Your task to perform on an android device: see tabs open on other devices in the chrome app Image 0: 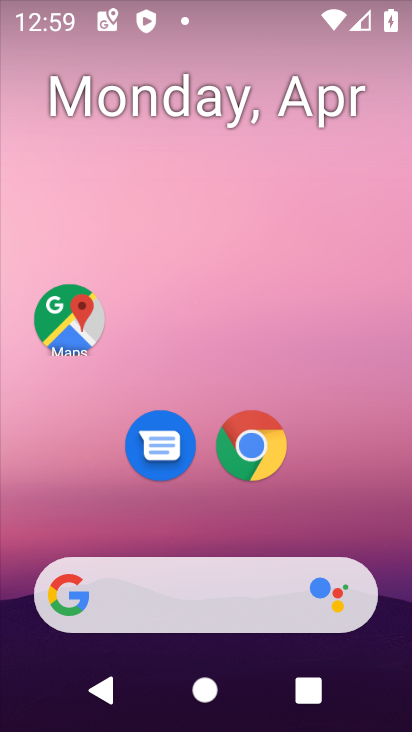
Step 0: drag from (358, 526) to (359, 100)
Your task to perform on an android device: see tabs open on other devices in the chrome app Image 1: 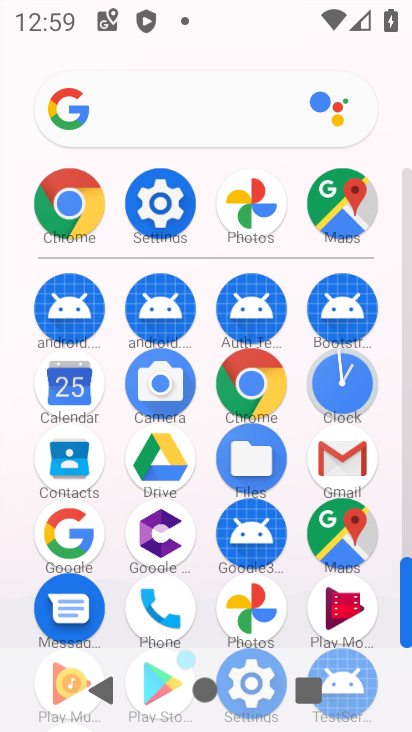
Step 1: click (268, 385)
Your task to perform on an android device: see tabs open on other devices in the chrome app Image 2: 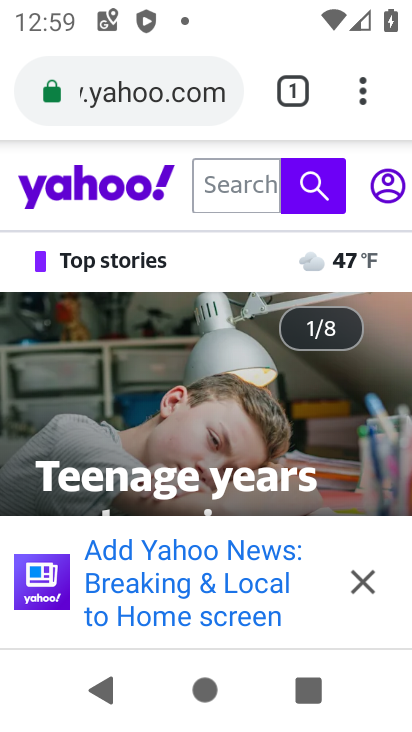
Step 2: click (363, 90)
Your task to perform on an android device: see tabs open on other devices in the chrome app Image 3: 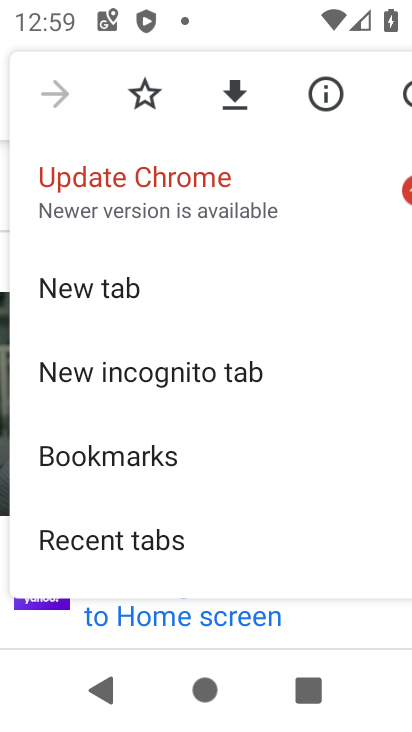
Step 3: click (159, 540)
Your task to perform on an android device: see tabs open on other devices in the chrome app Image 4: 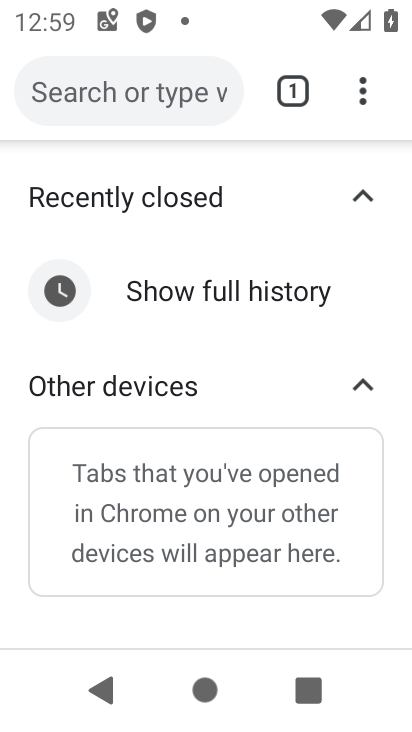
Step 4: click (291, 98)
Your task to perform on an android device: see tabs open on other devices in the chrome app Image 5: 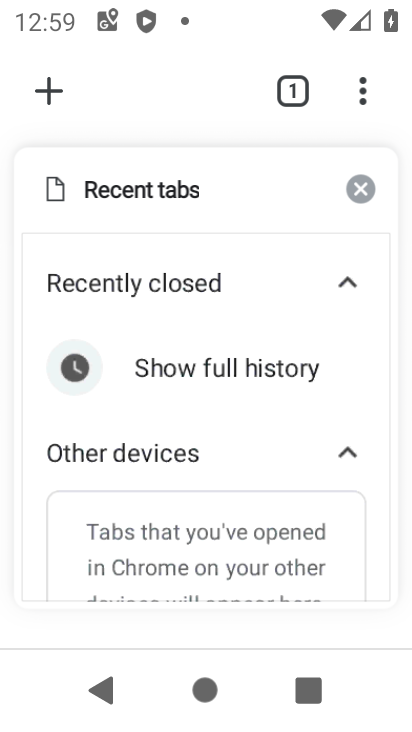
Step 5: task complete